Your task to perform on an android device: Turn off the flashlight Image 0: 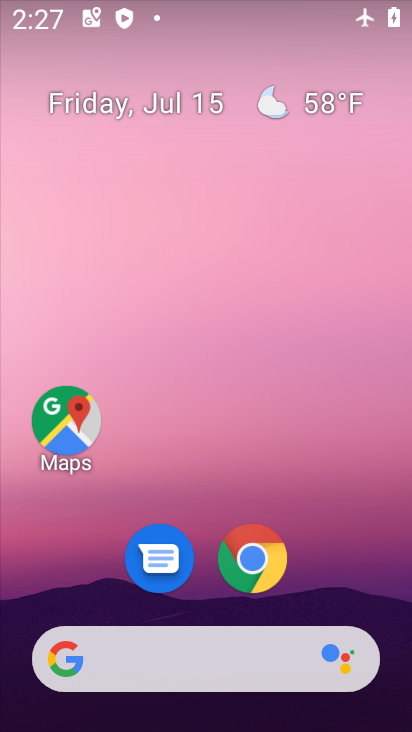
Step 0: drag from (228, 0) to (227, 355)
Your task to perform on an android device: Turn off the flashlight Image 1: 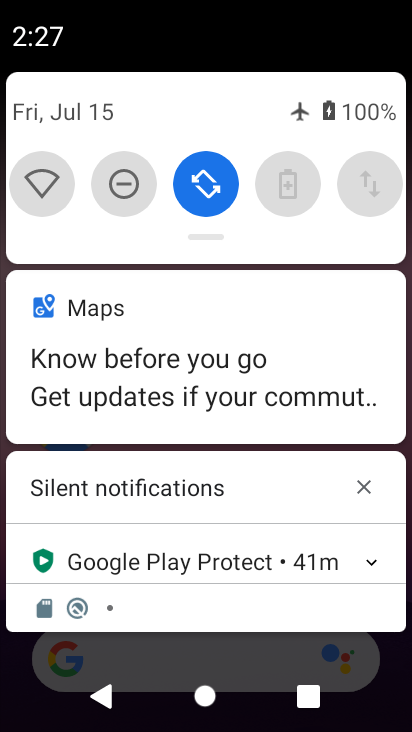
Step 1: drag from (252, 114) to (249, 400)
Your task to perform on an android device: Turn off the flashlight Image 2: 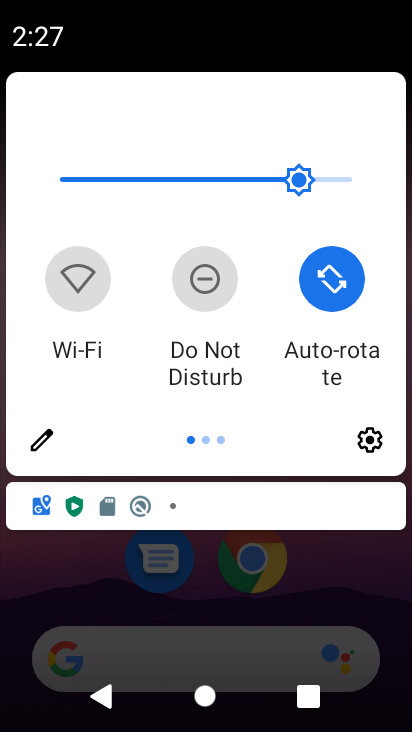
Step 2: click (43, 445)
Your task to perform on an android device: Turn off the flashlight Image 3: 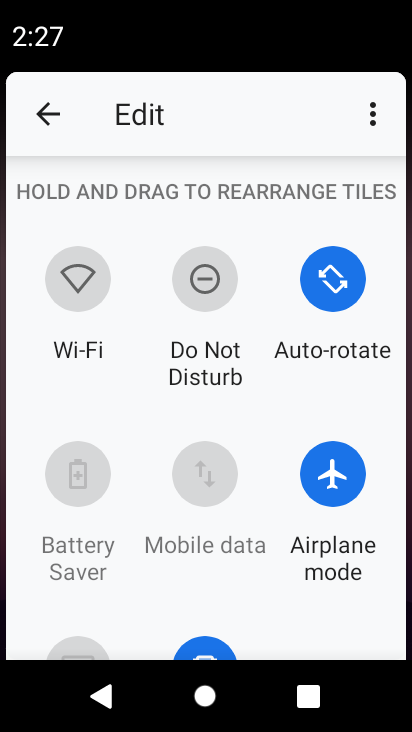
Step 3: task complete